Your task to perform on an android device: toggle translation in the chrome app Image 0: 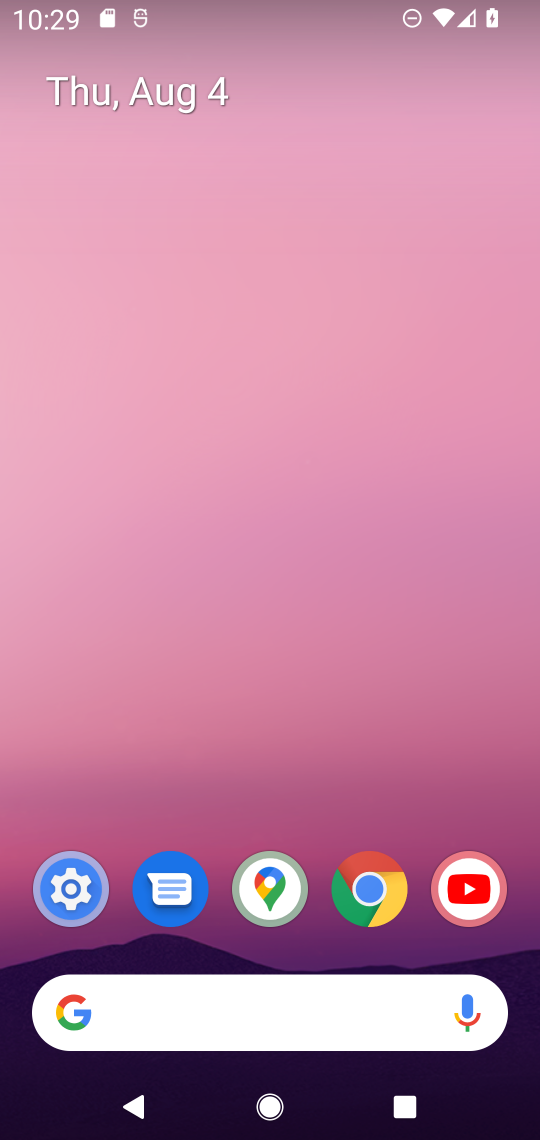
Step 0: press home button
Your task to perform on an android device: toggle translation in the chrome app Image 1: 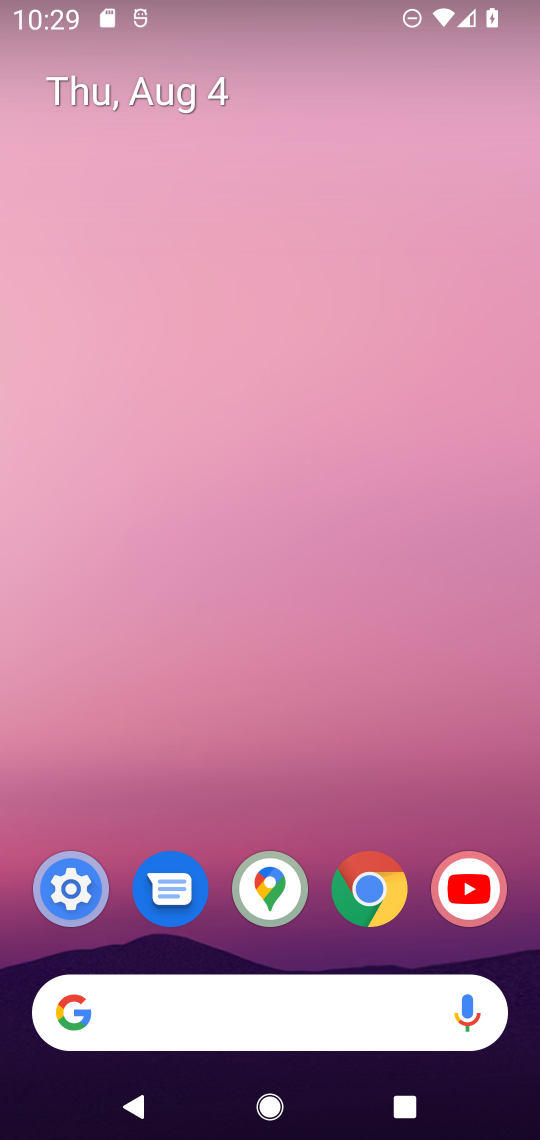
Step 1: drag from (308, 751) to (300, 268)
Your task to perform on an android device: toggle translation in the chrome app Image 2: 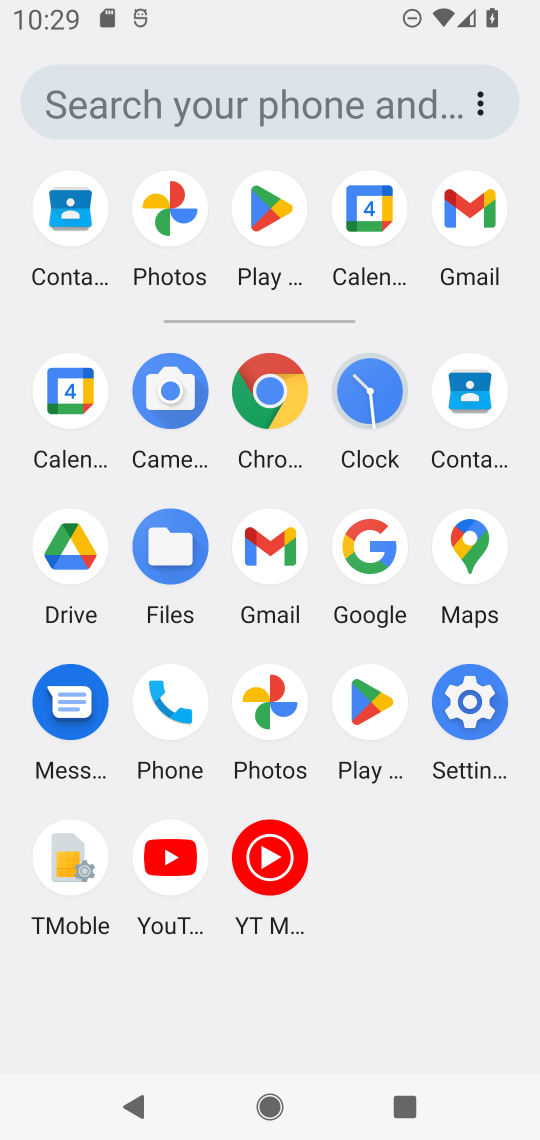
Step 2: click (270, 394)
Your task to perform on an android device: toggle translation in the chrome app Image 3: 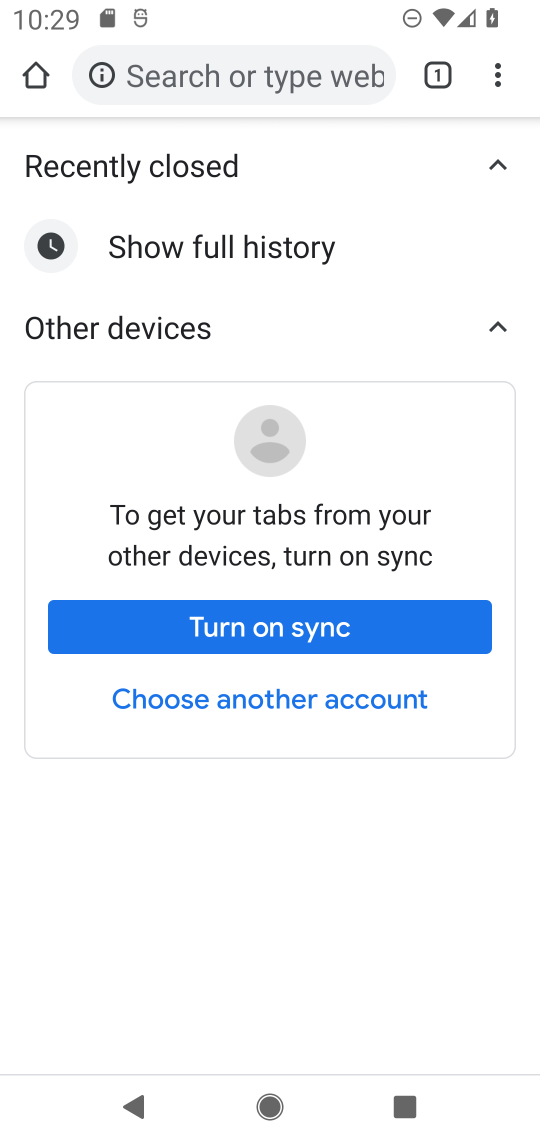
Step 3: click (500, 79)
Your task to perform on an android device: toggle translation in the chrome app Image 4: 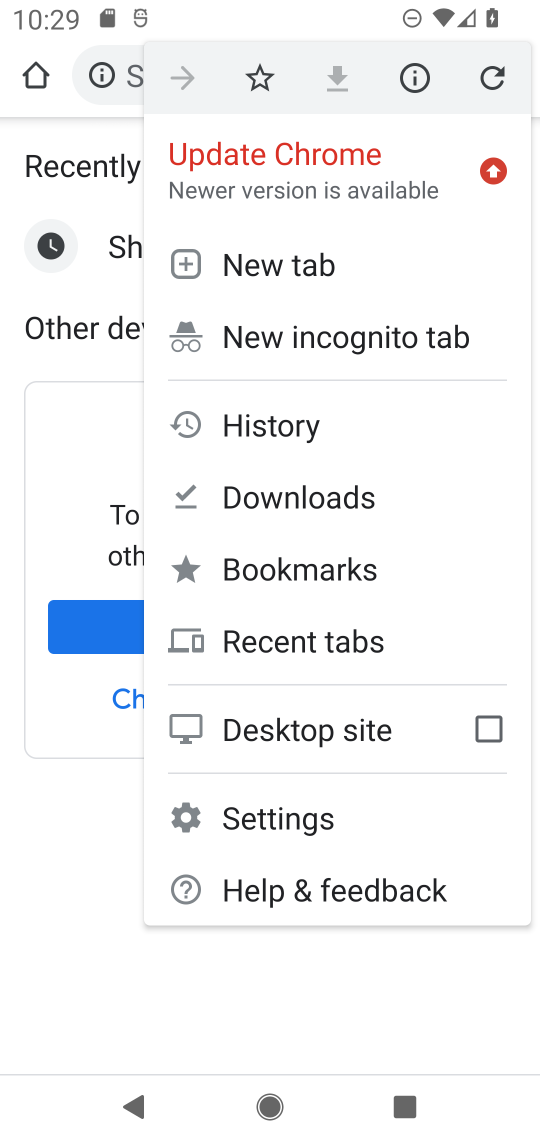
Step 4: click (292, 823)
Your task to perform on an android device: toggle translation in the chrome app Image 5: 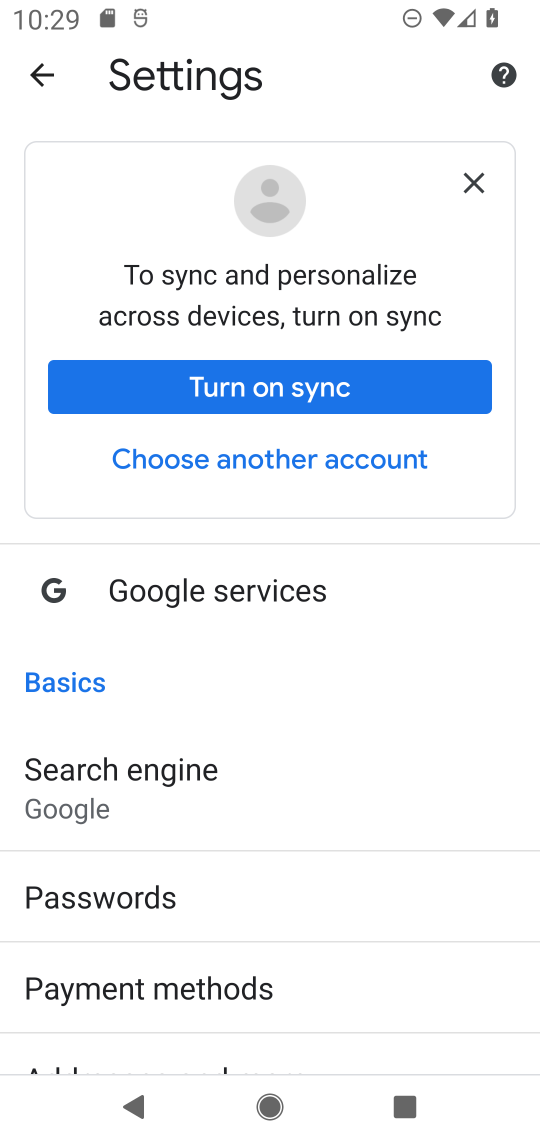
Step 5: drag from (442, 915) to (405, 714)
Your task to perform on an android device: toggle translation in the chrome app Image 6: 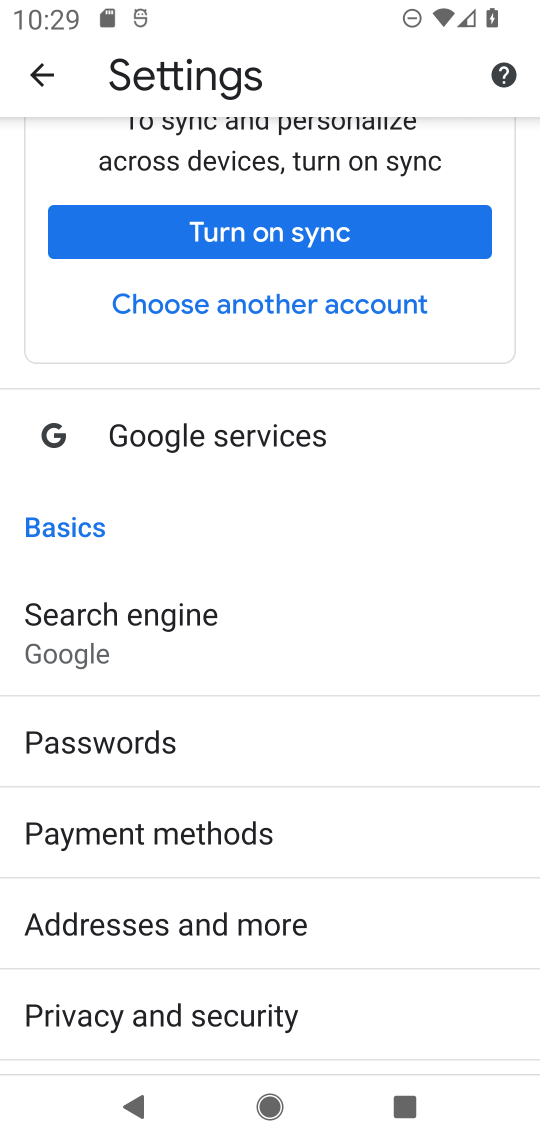
Step 6: drag from (428, 929) to (425, 739)
Your task to perform on an android device: toggle translation in the chrome app Image 7: 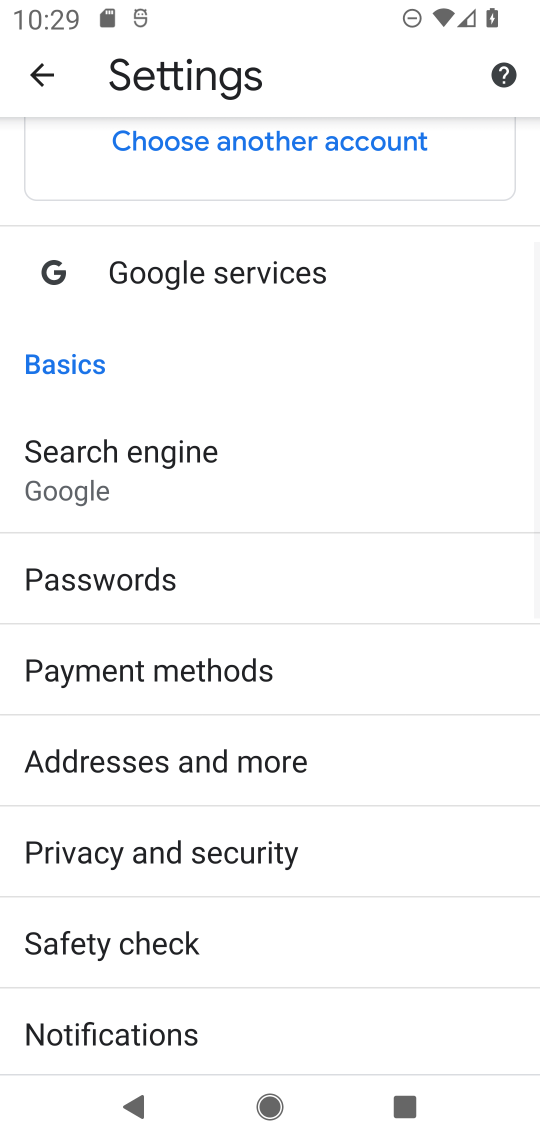
Step 7: drag from (372, 915) to (376, 700)
Your task to perform on an android device: toggle translation in the chrome app Image 8: 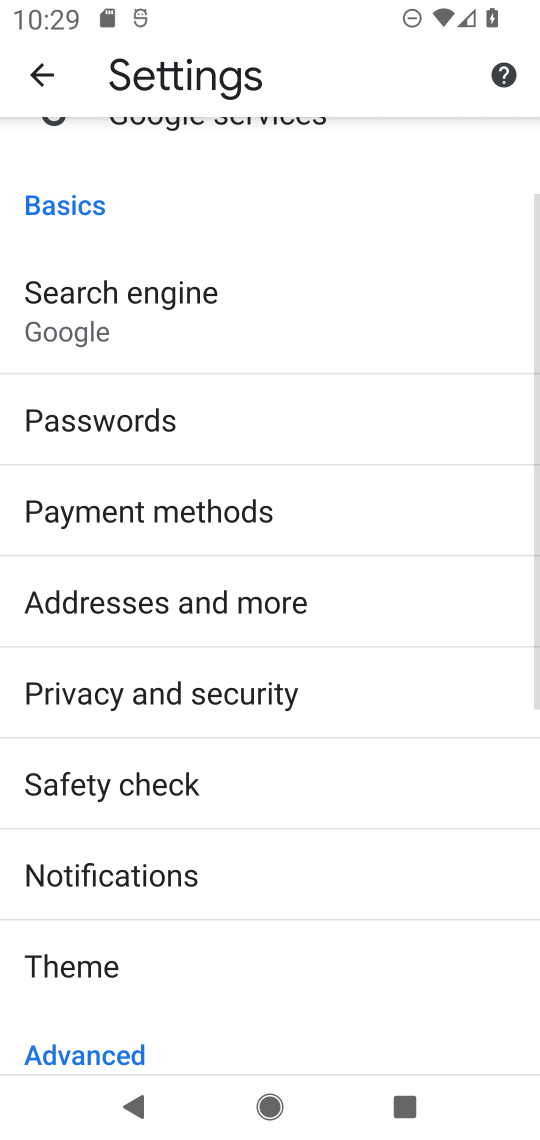
Step 8: drag from (403, 884) to (406, 715)
Your task to perform on an android device: toggle translation in the chrome app Image 9: 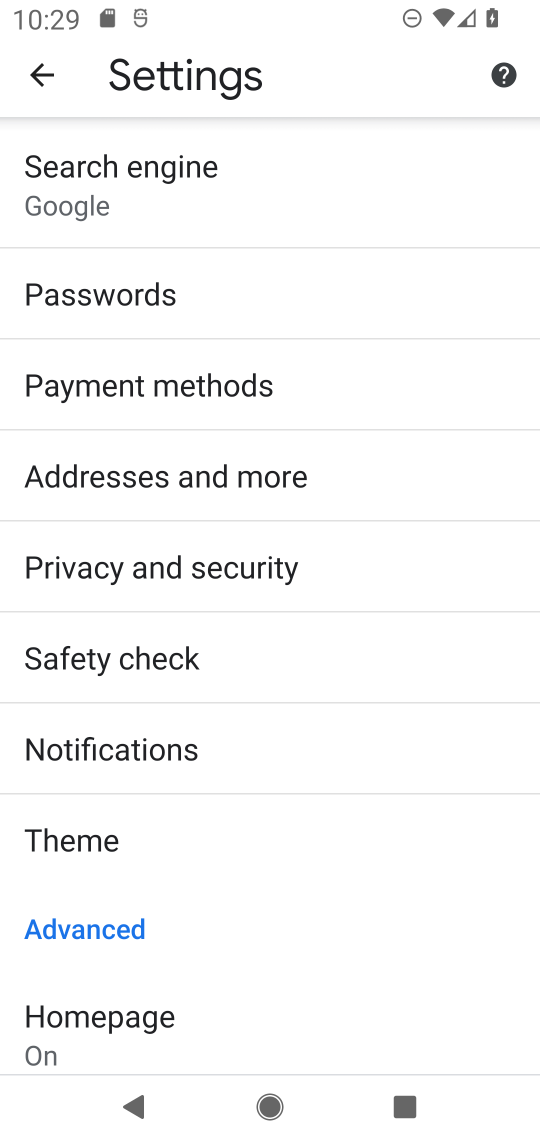
Step 9: drag from (394, 890) to (385, 712)
Your task to perform on an android device: toggle translation in the chrome app Image 10: 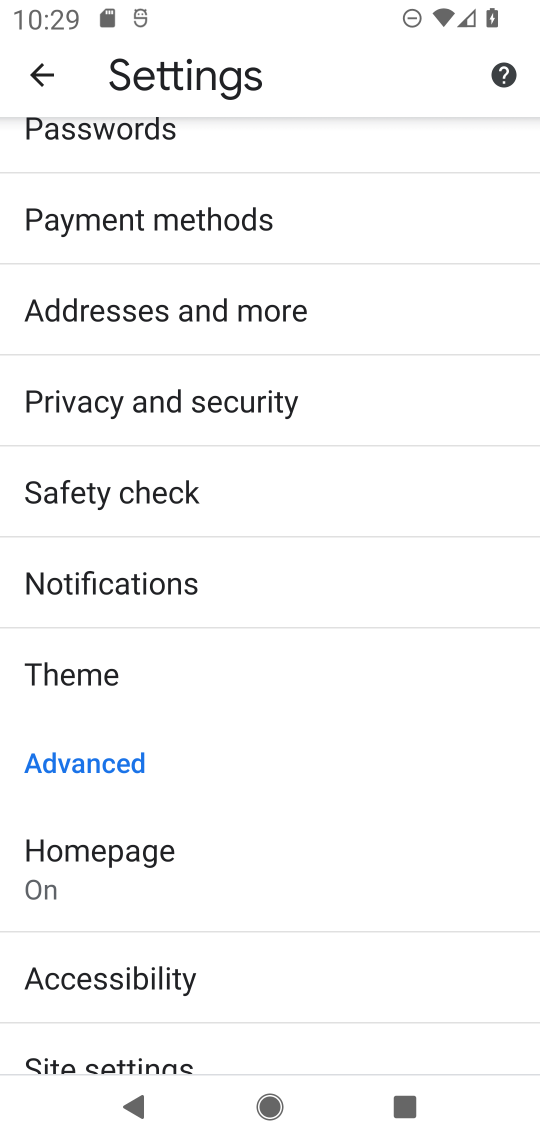
Step 10: drag from (393, 890) to (396, 655)
Your task to perform on an android device: toggle translation in the chrome app Image 11: 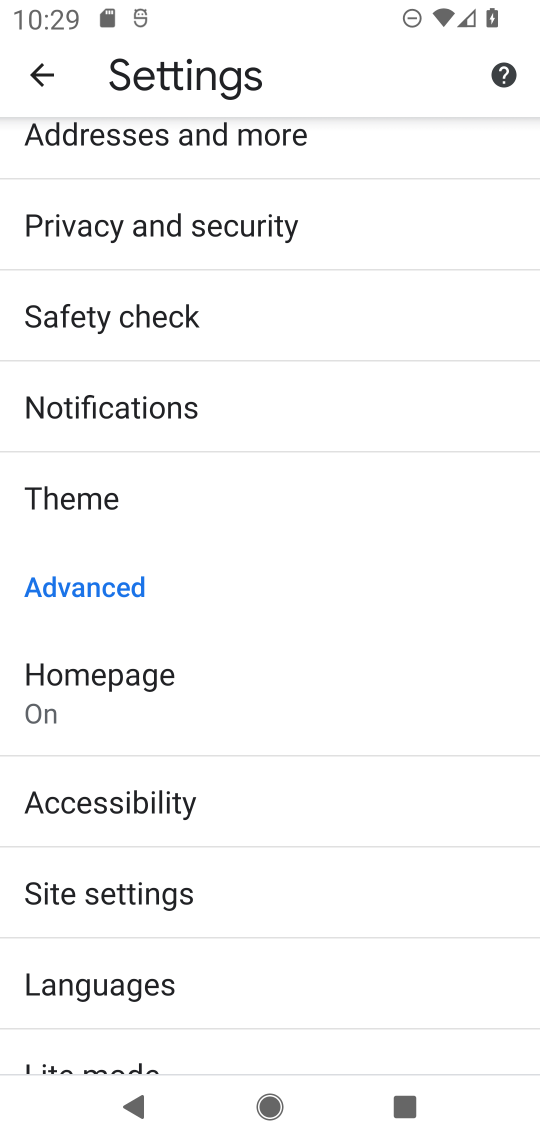
Step 11: drag from (381, 927) to (371, 699)
Your task to perform on an android device: toggle translation in the chrome app Image 12: 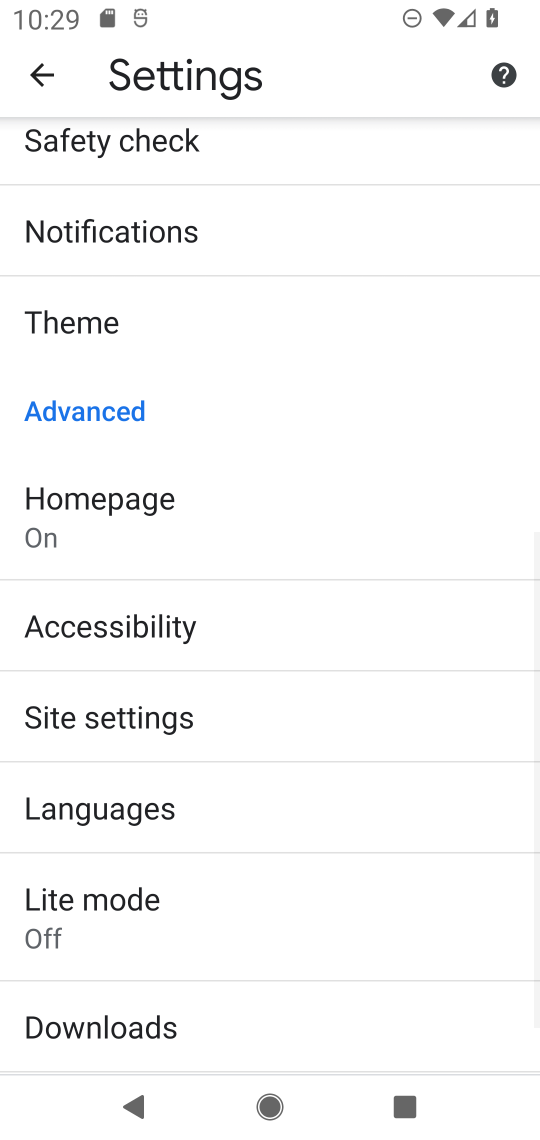
Step 12: click (348, 764)
Your task to perform on an android device: toggle translation in the chrome app Image 13: 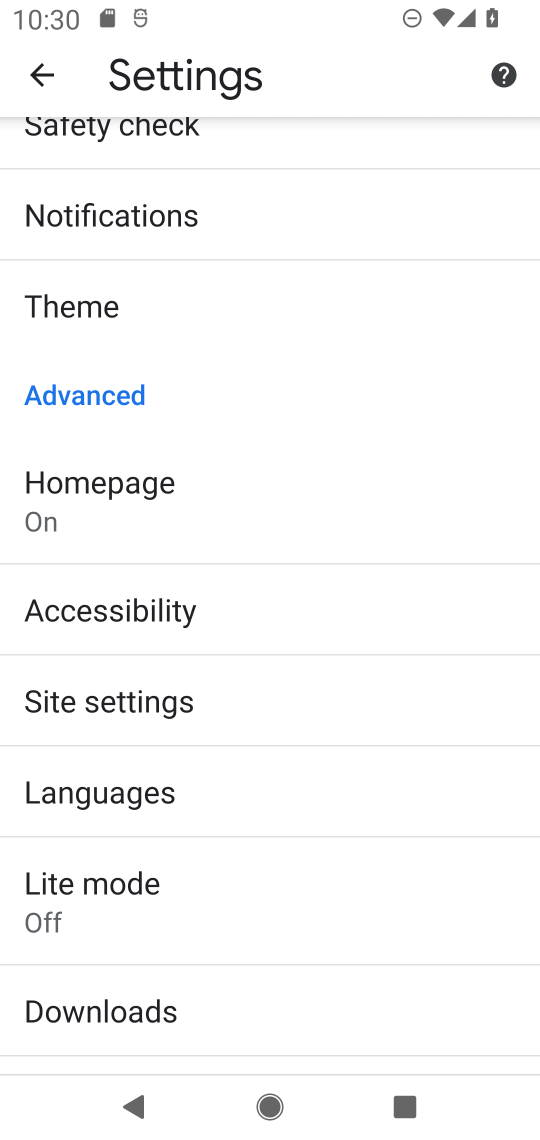
Step 13: click (189, 804)
Your task to perform on an android device: toggle translation in the chrome app Image 14: 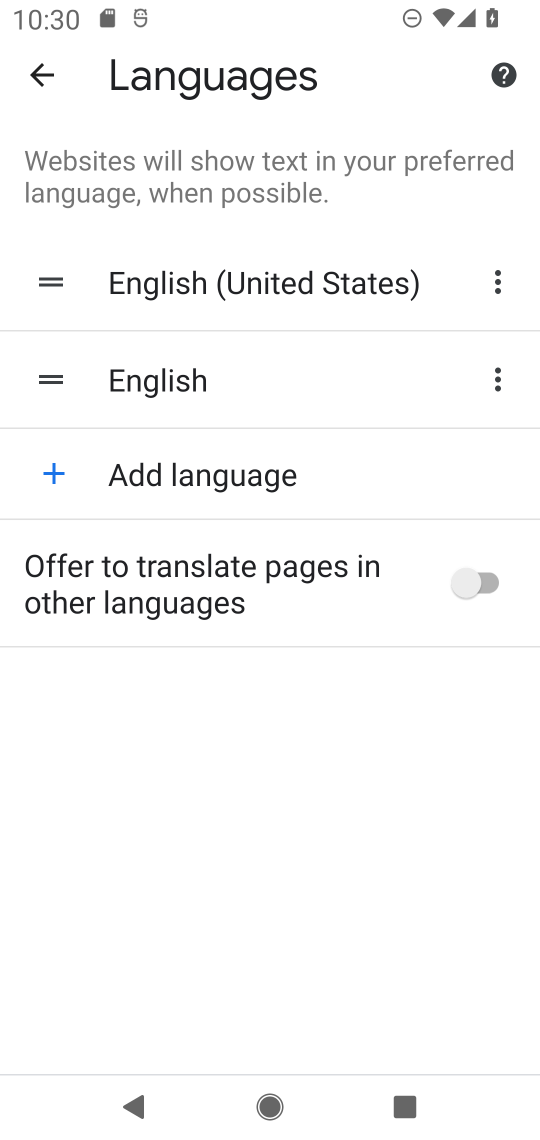
Step 14: click (464, 583)
Your task to perform on an android device: toggle translation in the chrome app Image 15: 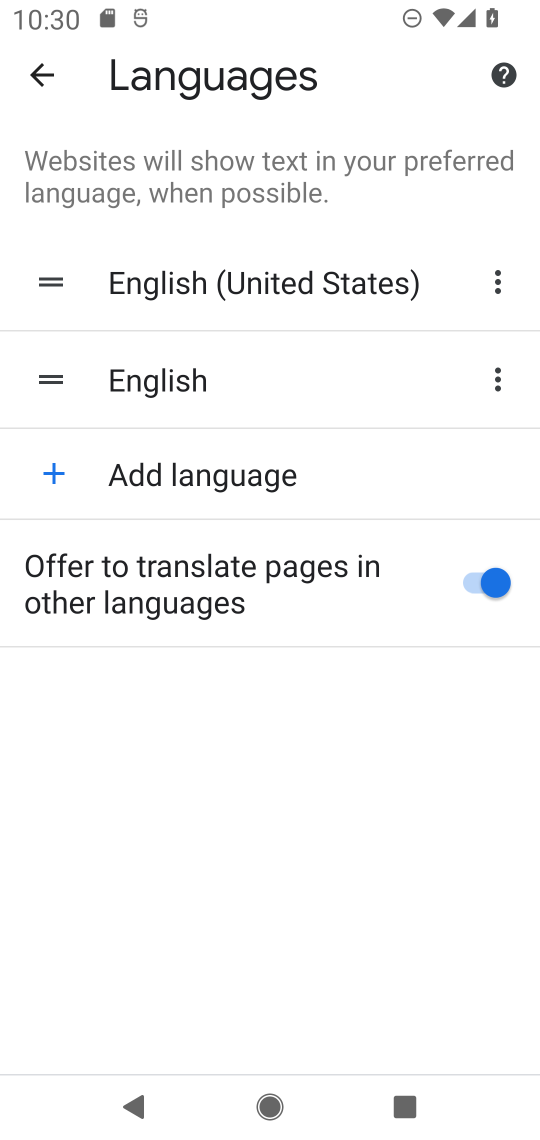
Step 15: task complete